Your task to perform on an android device: uninstall "Nova Launcher" Image 0: 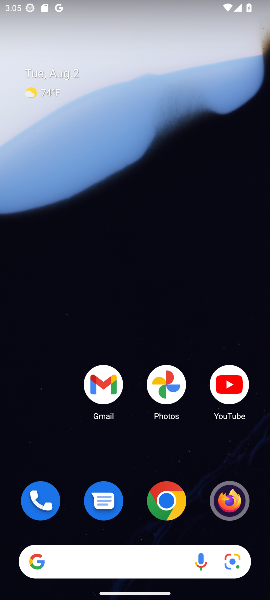
Step 0: drag from (141, 455) to (129, 19)
Your task to perform on an android device: uninstall "Nova Launcher" Image 1: 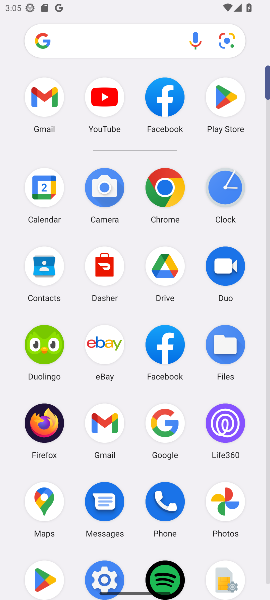
Step 1: click (217, 108)
Your task to perform on an android device: uninstall "Nova Launcher" Image 2: 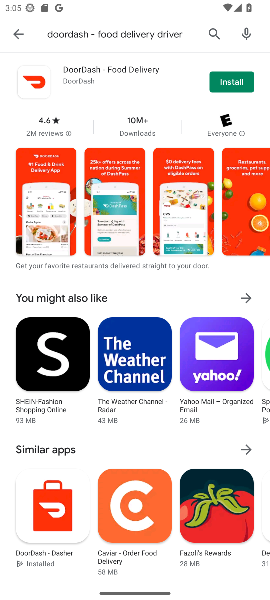
Step 2: click (216, 34)
Your task to perform on an android device: uninstall "Nova Launcher" Image 3: 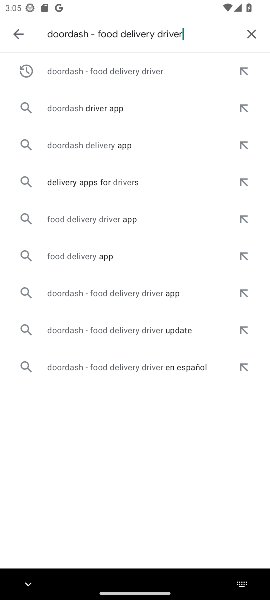
Step 3: click (257, 28)
Your task to perform on an android device: uninstall "Nova Launcher" Image 4: 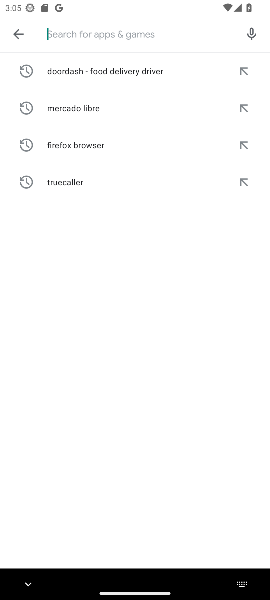
Step 4: type "Nova Launcher"
Your task to perform on an android device: uninstall "Nova Launcher" Image 5: 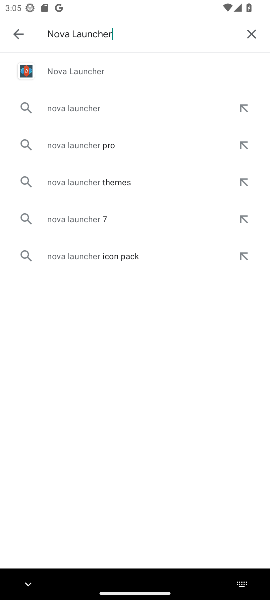
Step 5: click (76, 69)
Your task to perform on an android device: uninstall "Nova Launcher" Image 6: 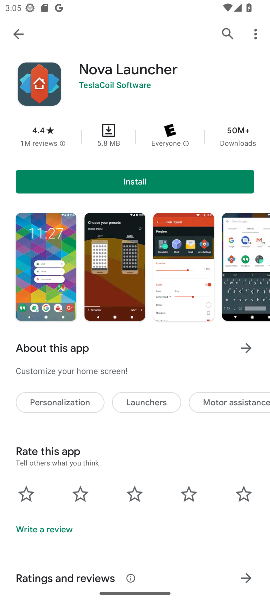
Step 6: task complete